Your task to perform on an android device: Open Google Maps Image 0: 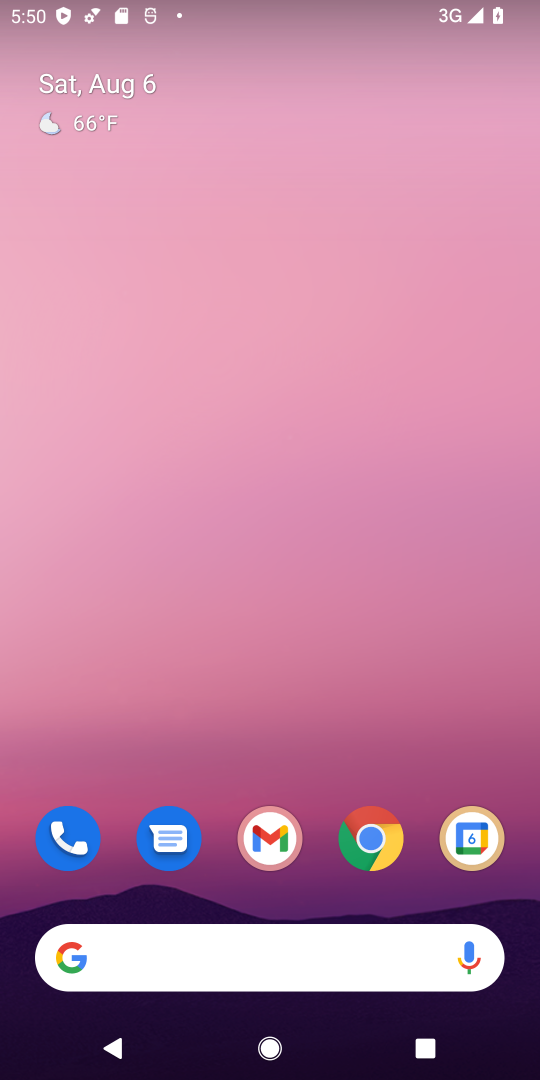
Step 0: drag from (240, 727) to (177, 16)
Your task to perform on an android device: Open Google Maps Image 1: 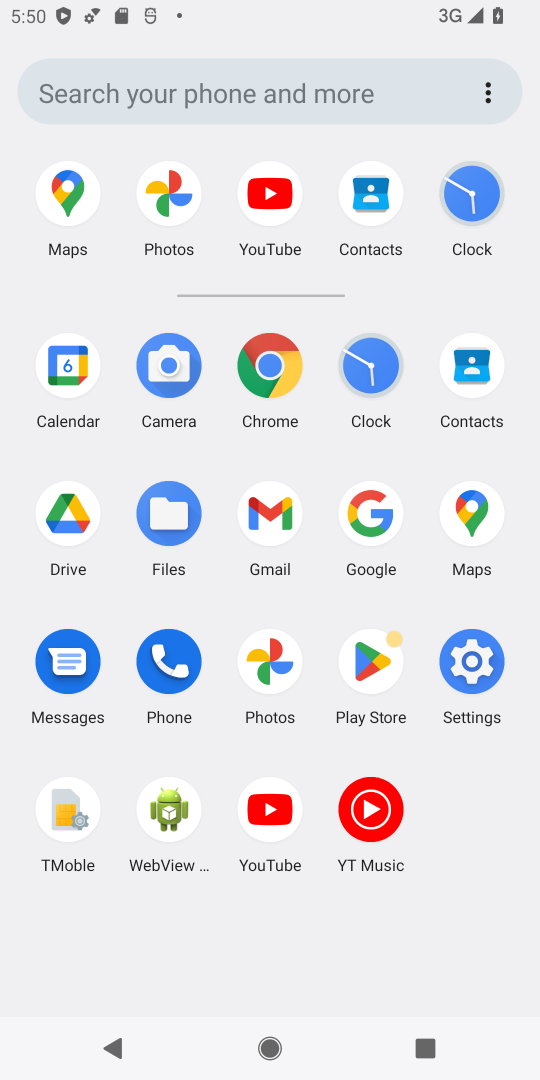
Step 1: click (481, 530)
Your task to perform on an android device: Open Google Maps Image 2: 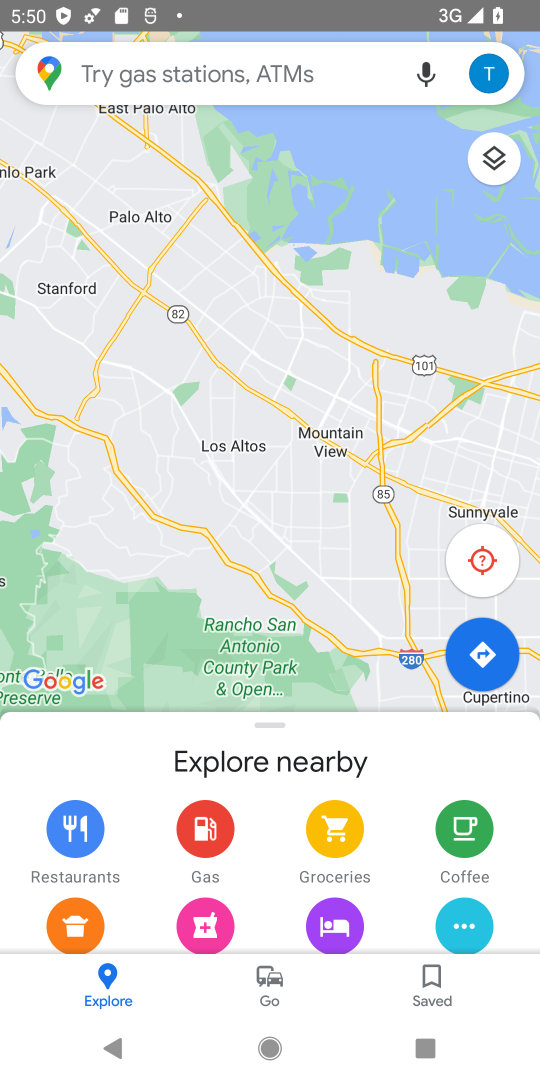
Step 2: task complete